Your task to perform on an android device: toggle sleep mode Image 0: 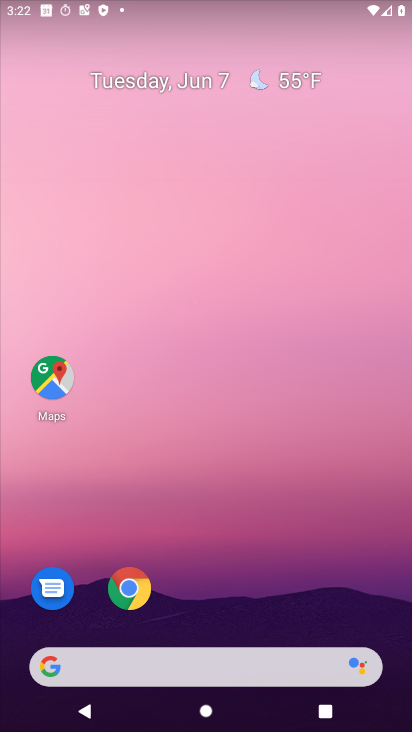
Step 0: press home button
Your task to perform on an android device: toggle sleep mode Image 1: 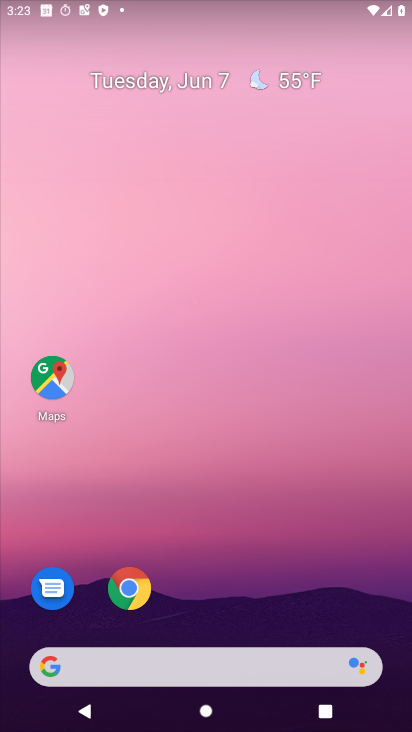
Step 1: drag from (235, 605) to (241, 52)
Your task to perform on an android device: toggle sleep mode Image 2: 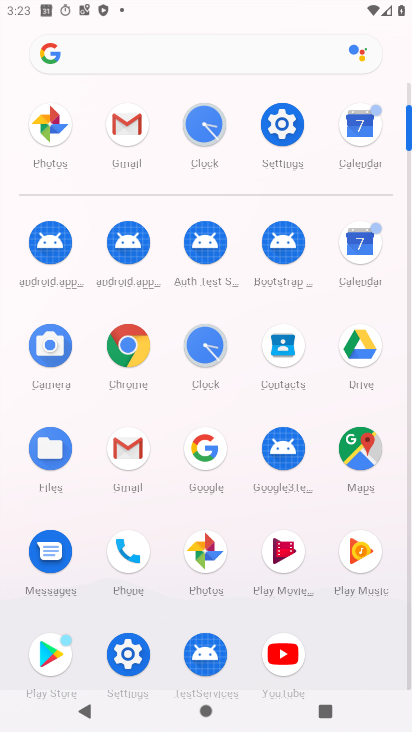
Step 2: click (286, 121)
Your task to perform on an android device: toggle sleep mode Image 3: 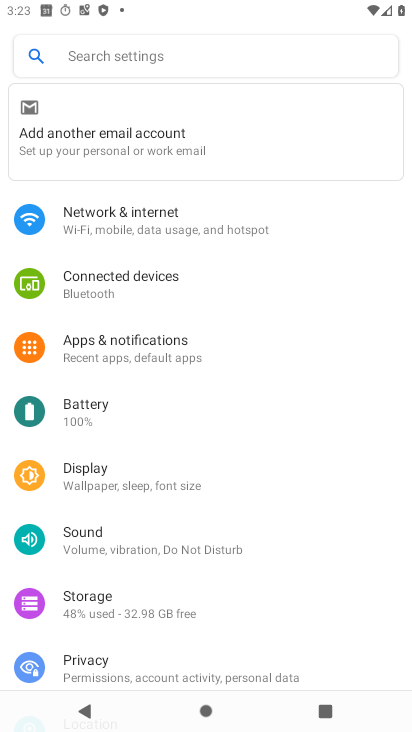
Step 3: click (86, 476)
Your task to perform on an android device: toggle sleep mode Image 4: 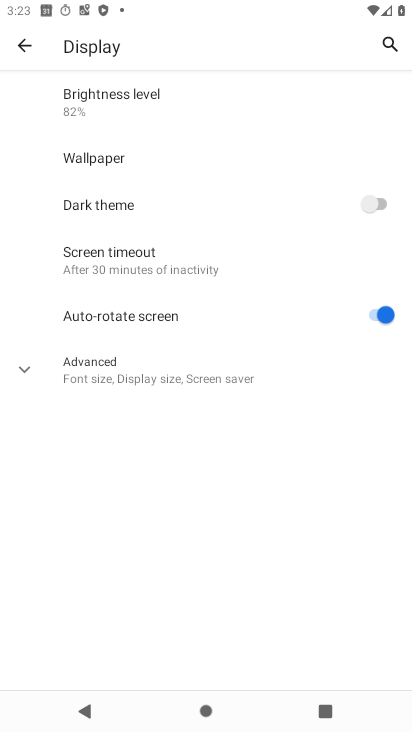
Step 4: task complete